Your task to perform on an android device: install app "Pandora - Music & Podcasts" Image 0: 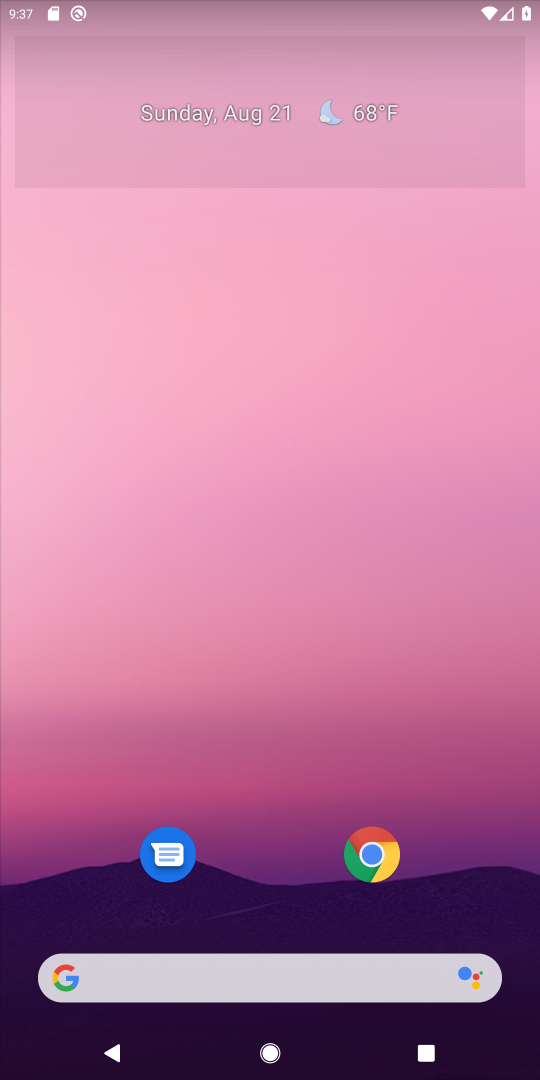
Step 0: drag from (256, 948) to (212, 334)
Your task to perform on an android device: install app "Pandora - Music & Podcasts" Image 1: 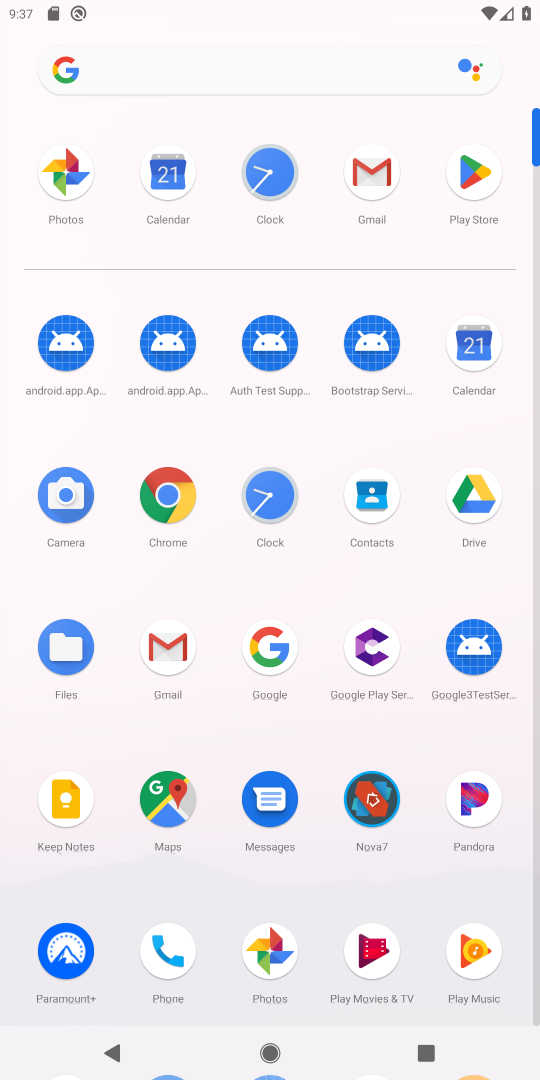
Step 1: click (481, 194)
Your task to perform on an android device: install app "Pandora - Music & Podcasts" Image 2: 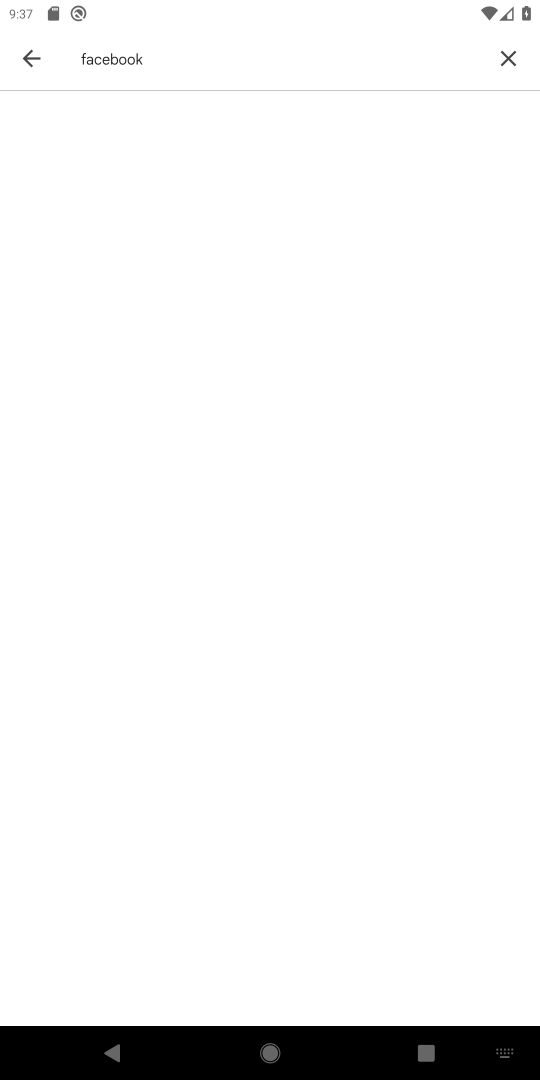
Step 2: click (505, 54)
Your task to perform on an android device: install app "Pandora - Music & Podcasts" Image 3: 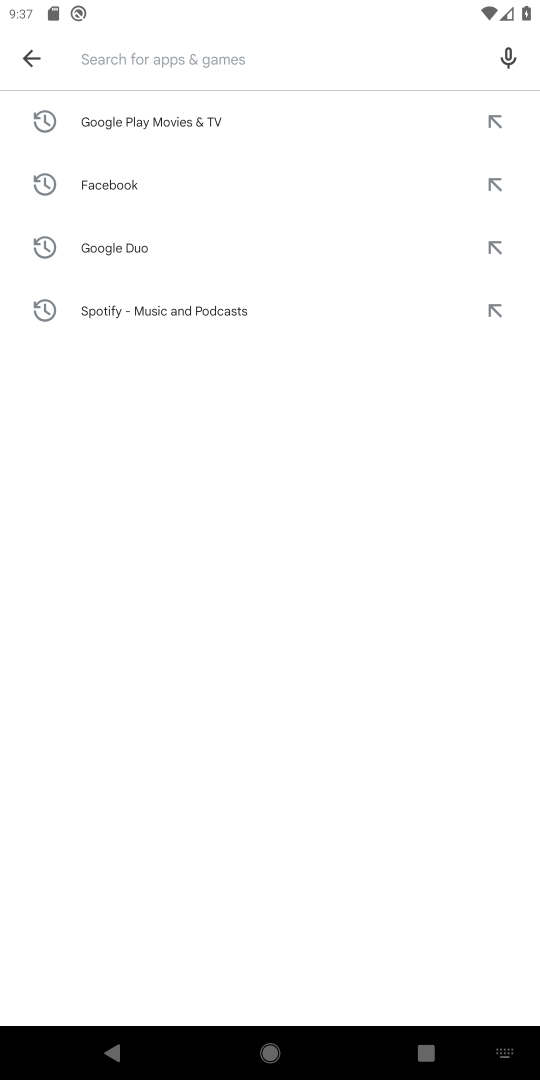
Step 3: type "pandora"
Your task to perform on an android device: install app "Pandora - Music & Podcasts" Image 4: 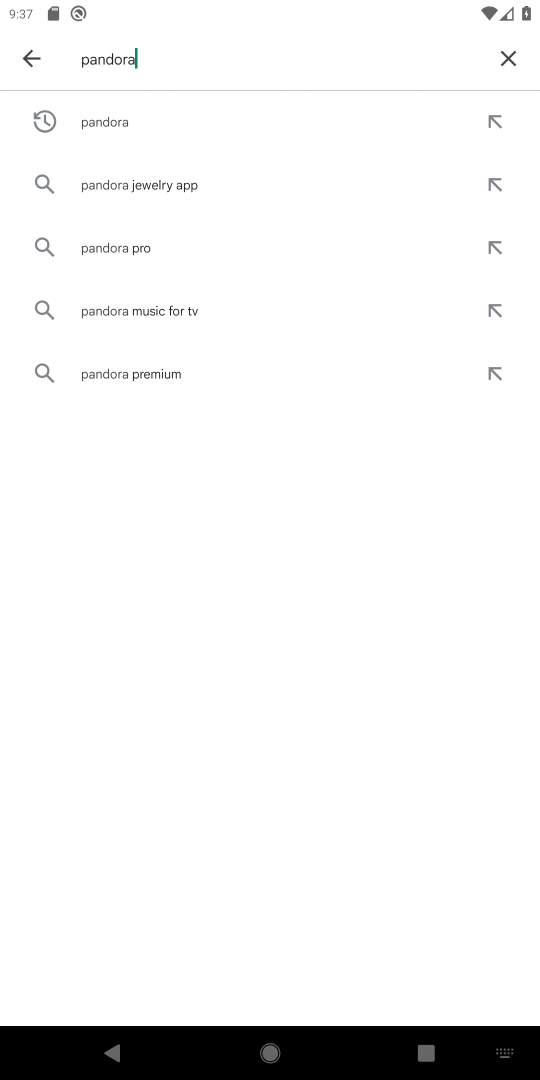
Step 4: click (215, 114)
Your task to perform on an android device: install app "Pandora - Music & Podcasts" Image 5: 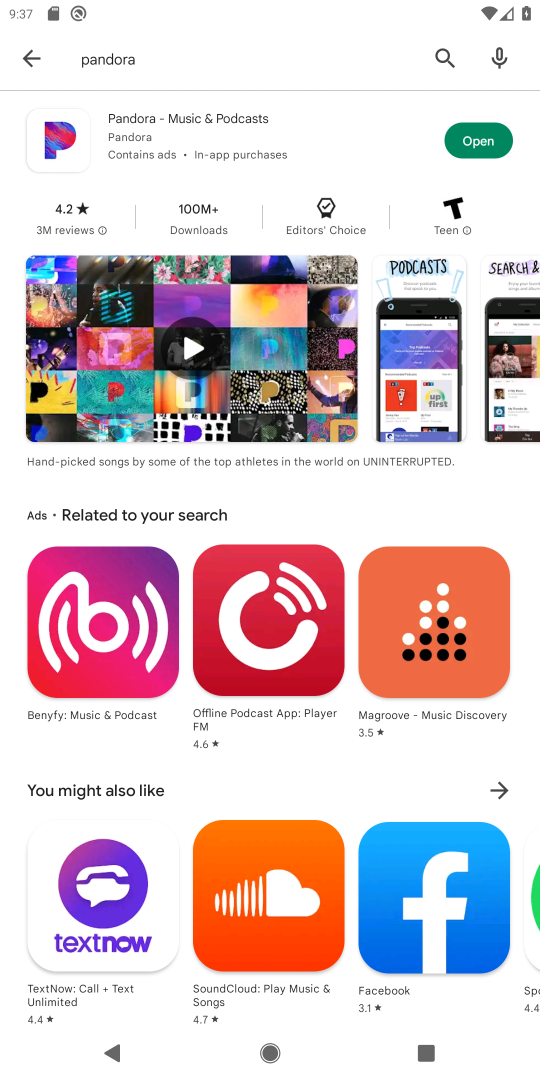
Step 5: click (479, 145)
Your task to perform on an android device: install app "Pandora - Music & Podcasts" Image 6: 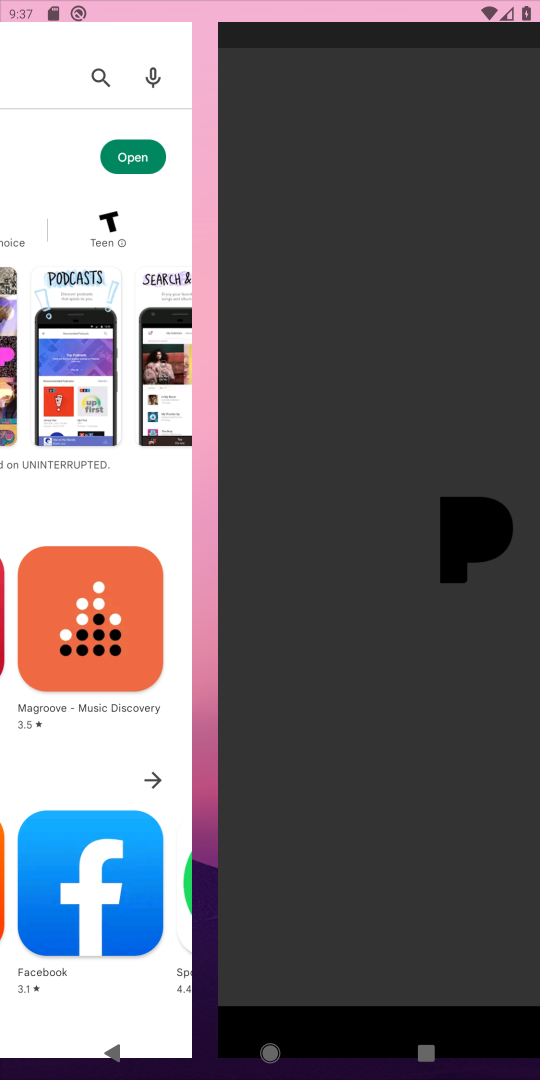
Step 6: task complete